Your task to perform on an android device: Search for vegetarian restaurants on Maps Image 0: 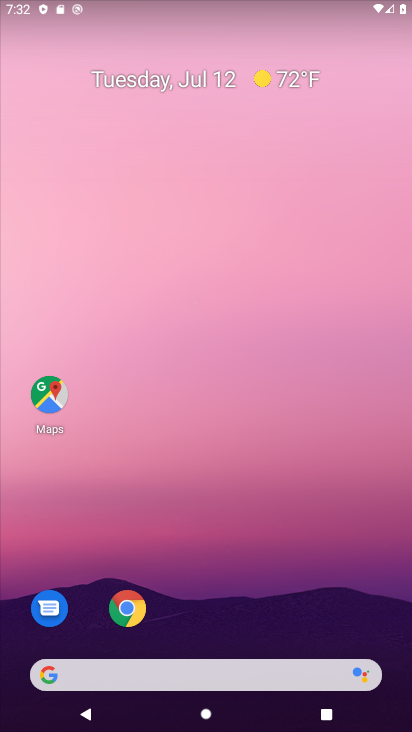
Step 0: drag from (357, 615) to (380, 197)
Your task to perform on an android device: Search for vegetarian restaurants on Maps Image 1: 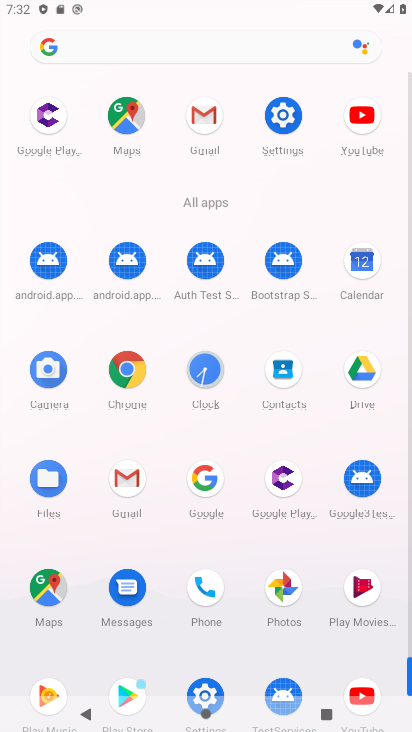
Step 1: click (51, 592)
Your task to perform on an android device: Search for vegetarian restaurants on Maps Image 2: 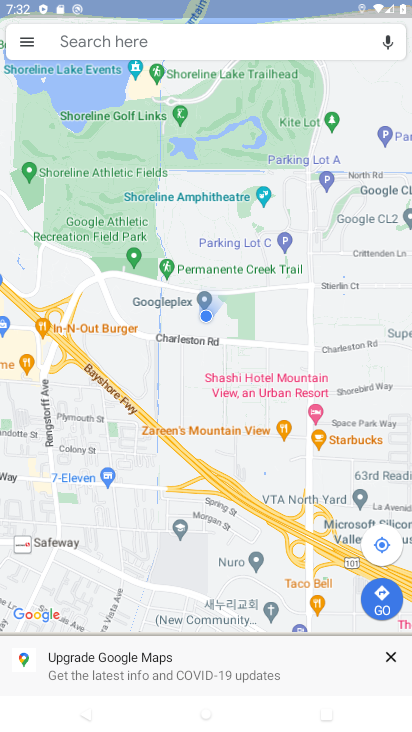
Step 2: click (208, 34)
Your task to perform on an android device: Search for vegetarian restaurants on Maps Image 3: 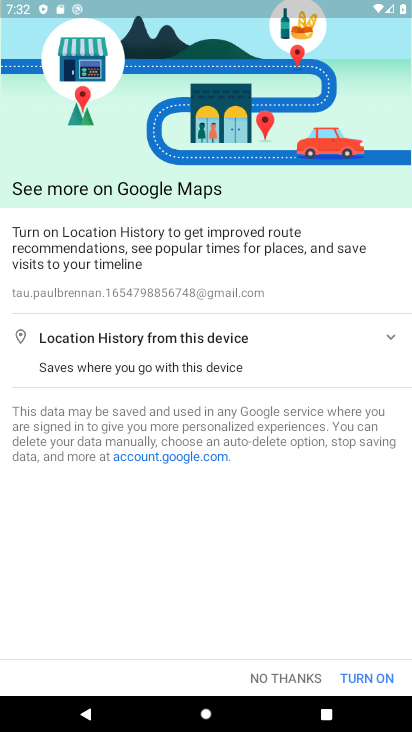
Step 3: click (307, 673)
Your task to perform on an android device: Search for vegetarian restaurants on Maps Image 4: 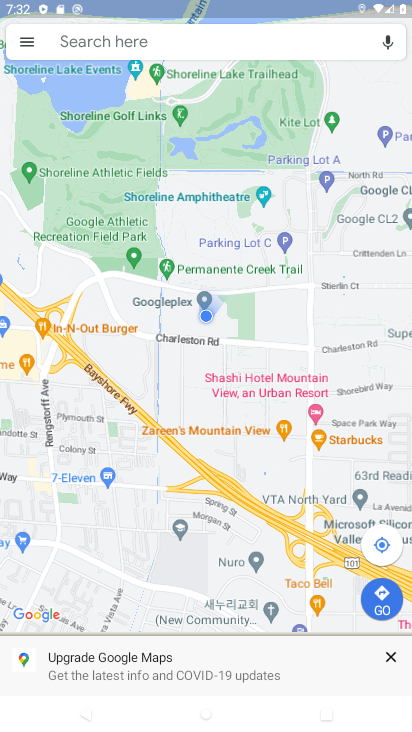
Step 4: click (202, 40)
Your task to perform on an android device: Search for vegetarian restaurants on Maps Image 5: 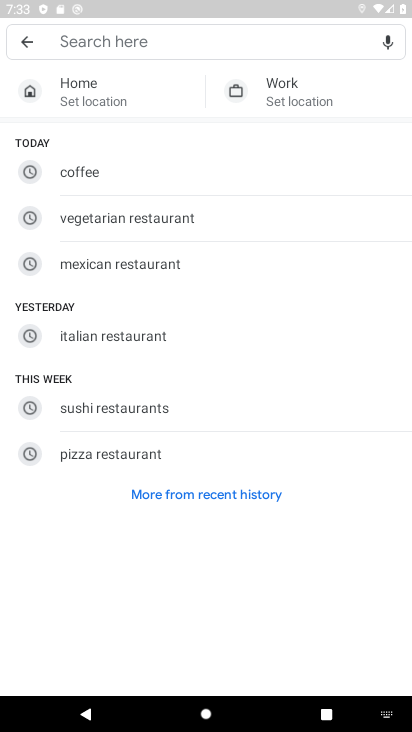
Step 5: type "vegetrain restaurants"
Your task to perform on an android device: Search for vegetarian restaurants on Maps Image 6: 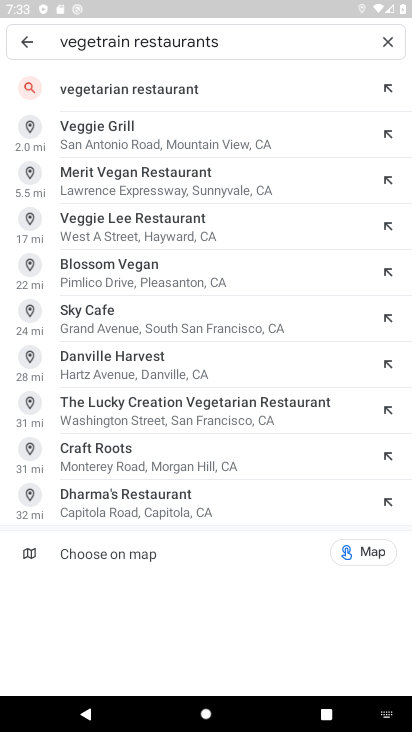
Step 6: click (301, 93)
Your task to perform on an android device: Search for vegetarian restaurants on Maps Image 7: 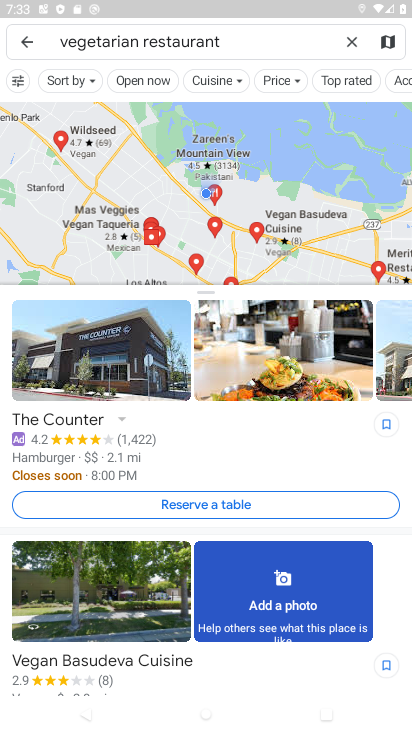
Step 7: task complete